Your task to perform on an android device: change keyboard looks Image 0: 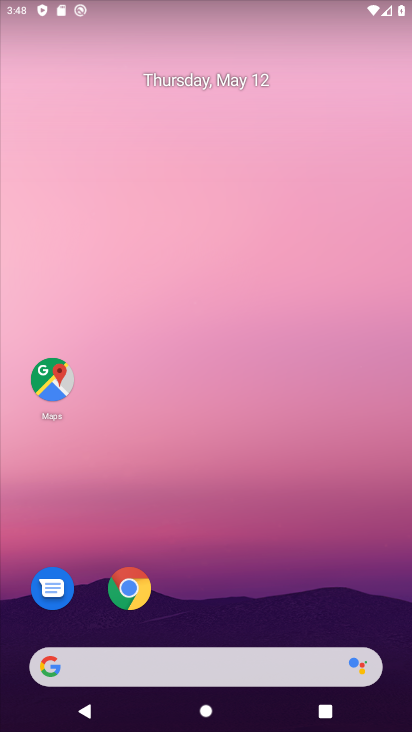
Step 0: drag from (204, 629) to (187, 204)
Your task to perform on an android device: change keyboard looks Image 1: 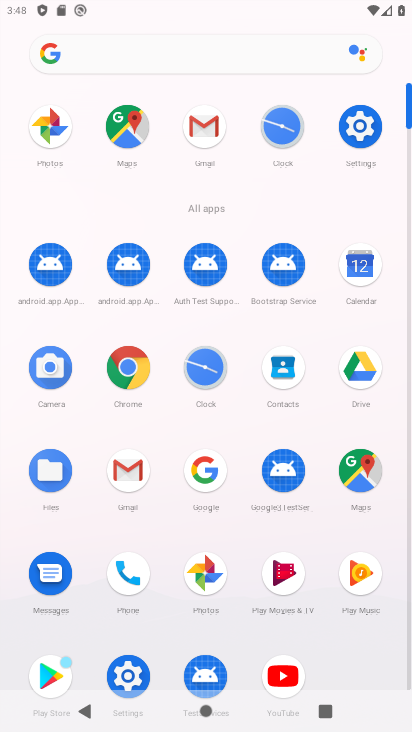
Step 1: click (370, 118)
Your task to perform on an android device: change keyboard looks Image 2: 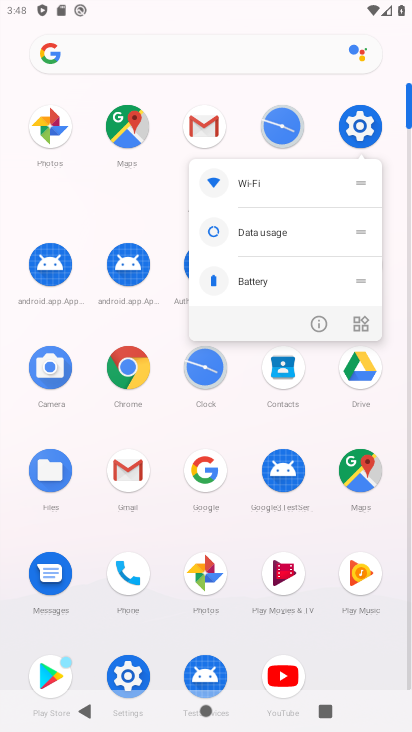
Step 2: click (303, 316)
Your task to perform on an android device: change keyboard looks Image 3: 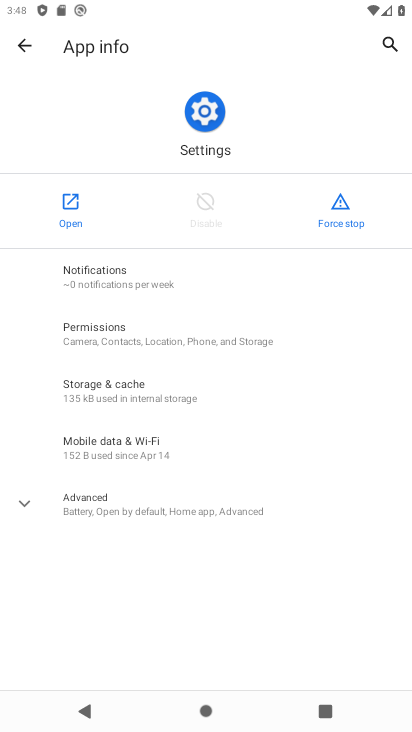
Step 3: click (67, 206)
Your task to perform on an android device: change keyboard looks Image 4: 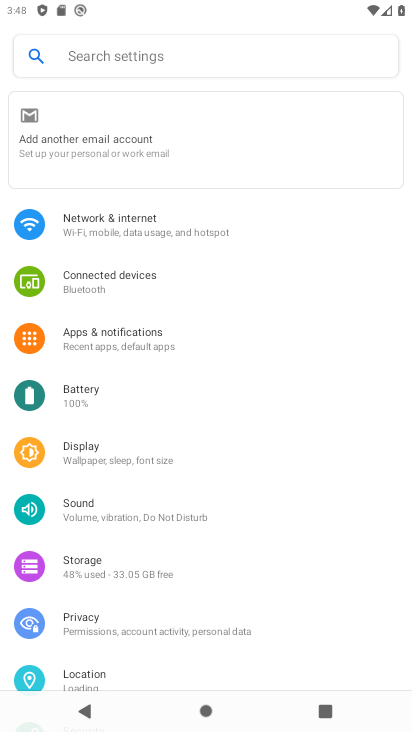
Step 4: drag from (229, 596) to (307, 80)
Your task to perform on an android device: change keyboard looks Image 5: 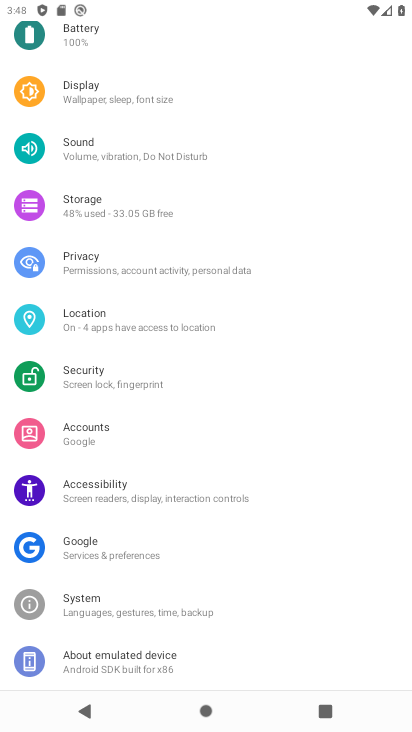
Step 5: click (157, 608)
Your task to perform on an android device: change keyboard looks Image 6: 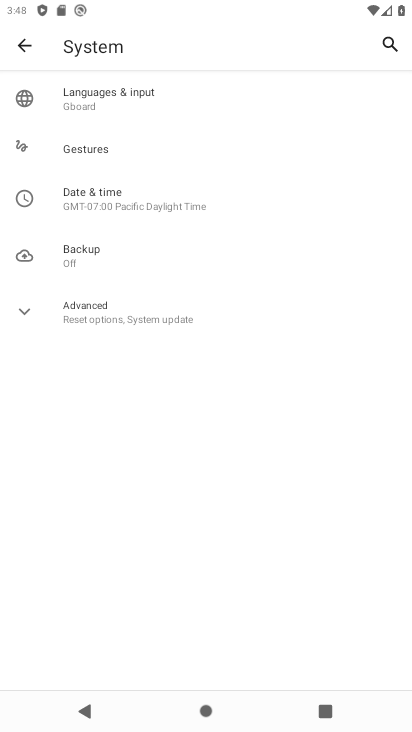
Step 6: click (149, 91)
Your task to perform on an android device: change keyboard looks Image 7: 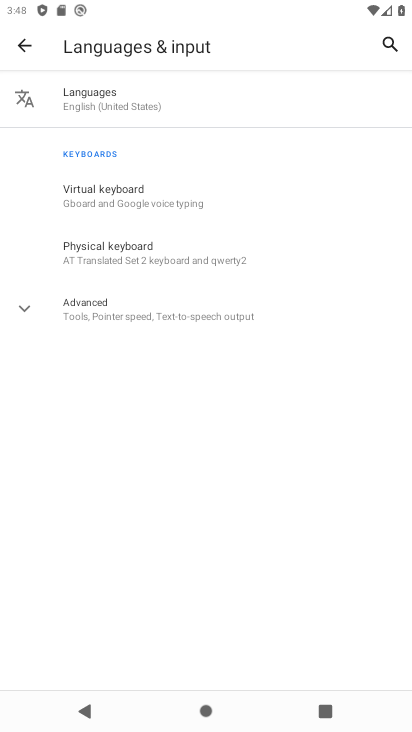
Step 7: click (152, 180)
Your task to perform on an android device: change keyboard looks Image 8: 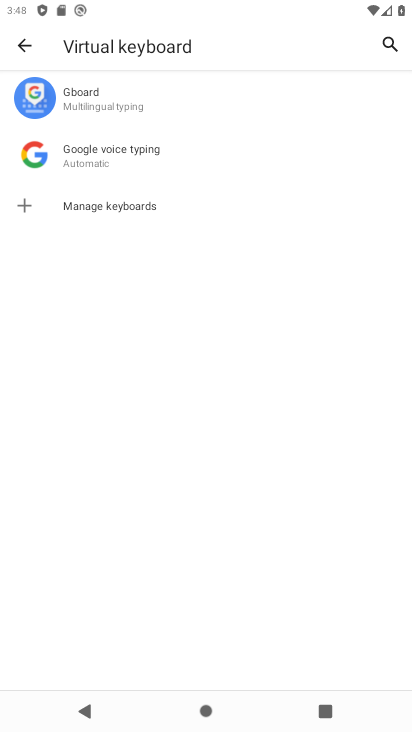
Step 8: click (166, 103)
Your task to perform on an android device: change keyboard looks Image 9: 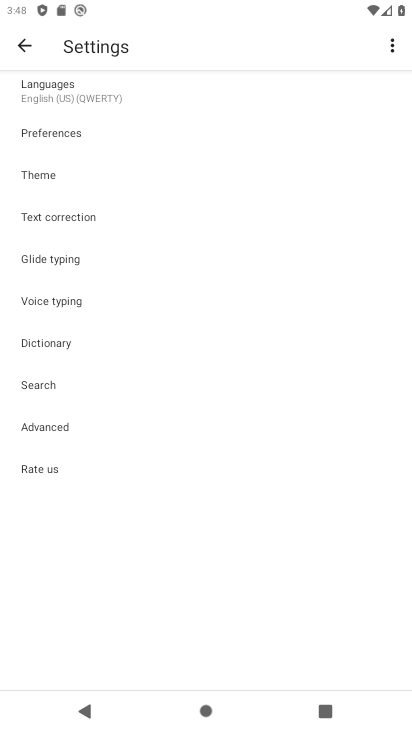
Step 9: click (64, 169)
Your task to perform on an android device: change keyboard looks Image 10: 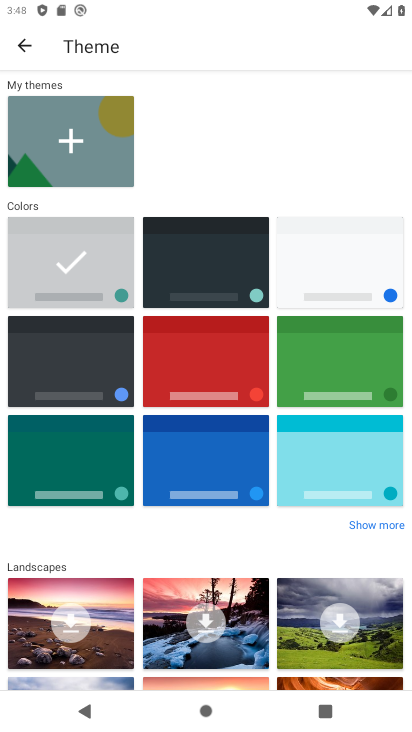
Step 10: drag from (200, 555) to (224, 203)
Your task to perform on an android device: change keyboard looks Image 11: 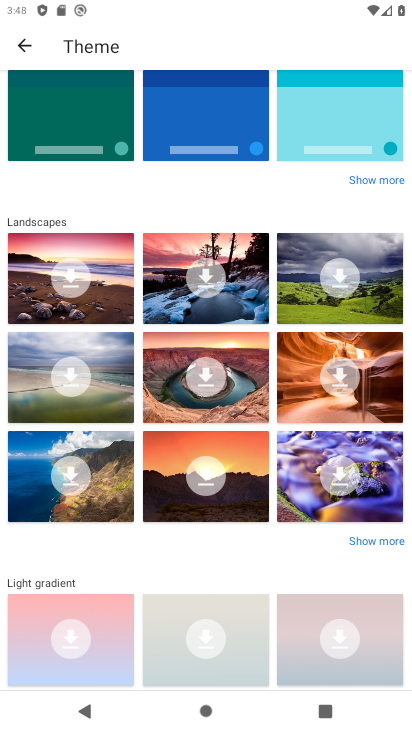
Step 11: click (99, 99)
Your task to perform on an android device: change keyboard looks Image 12: 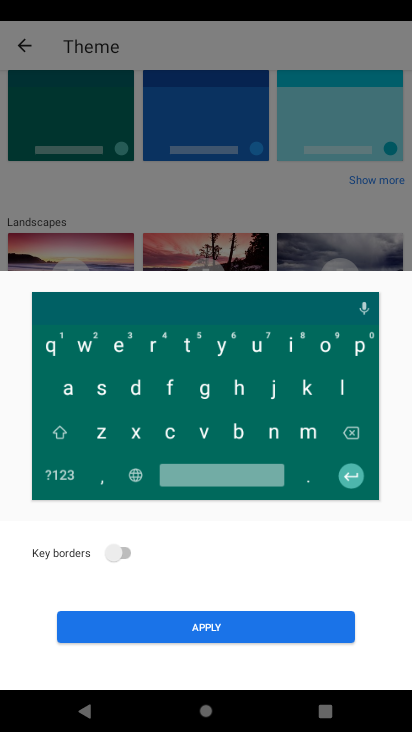
Step 12: click (241, 623)
Your task to perform on an android device: change keyboard looks Image 13: 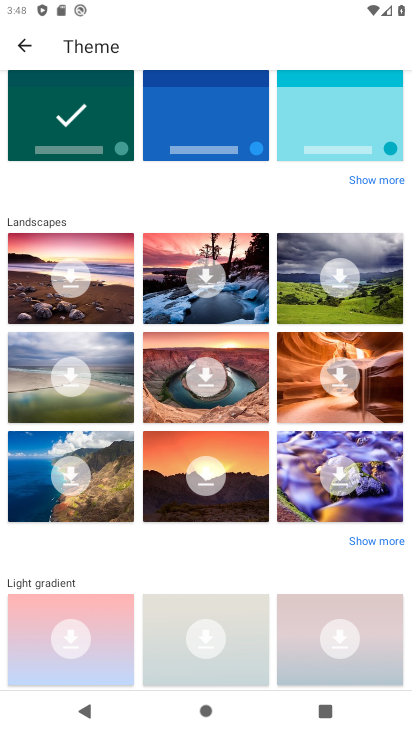
Step 13: task complete